Your task to perform on an android device: Go to privacy settings Image 0: 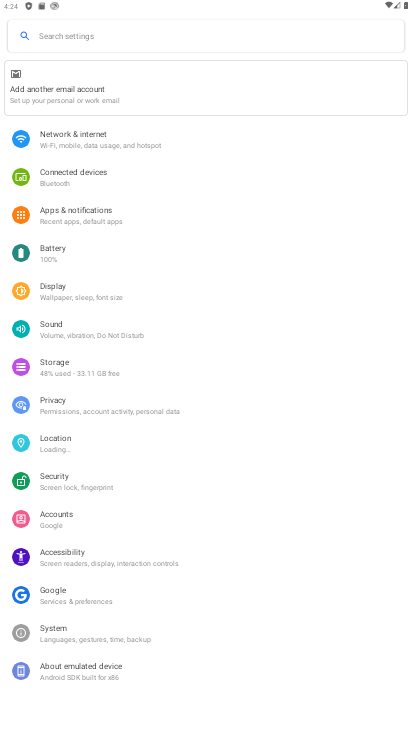
Step 0: press home button
Your task to perform on an android device: Go to privacy settings Image 1: 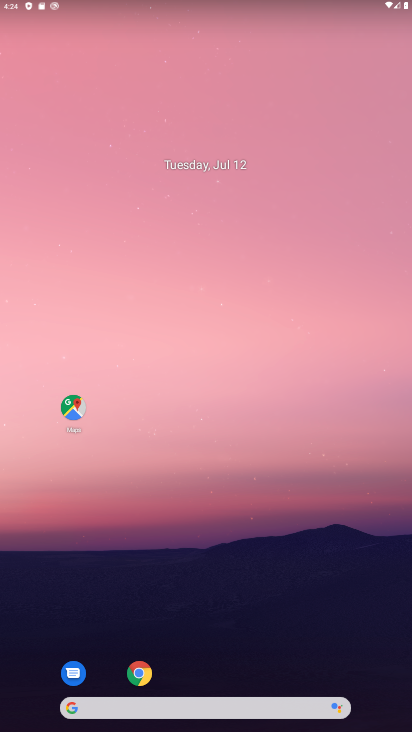
Step 1: drag from (204, 731) to (221, 198)
Your task to perform on an android device: Go to privacy settings Image 2: 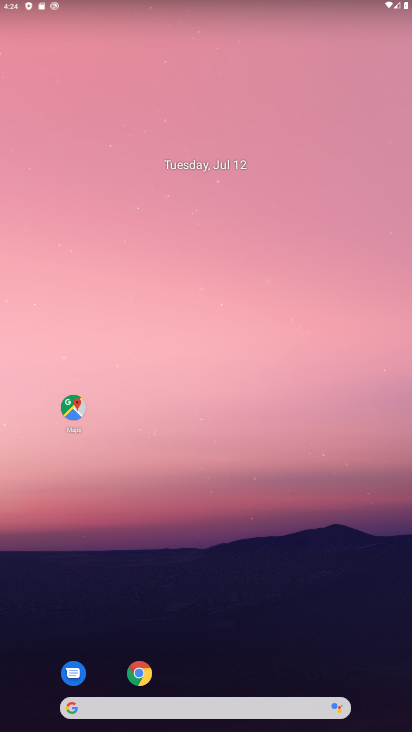
Step 2: drag from (292, 726) to (292, 595)
Your task to perform on an android device: Go to privacy settings Image 3: 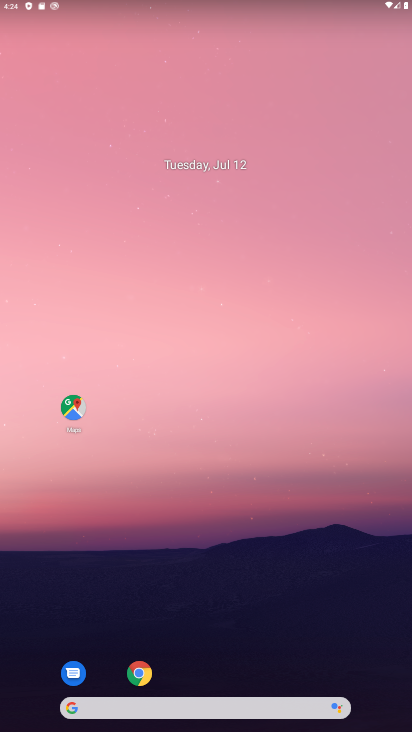
Step 3: drag from (291, 219) to (286, 108)
Your task to perform on an android device: Go to privacy settings Image 4: 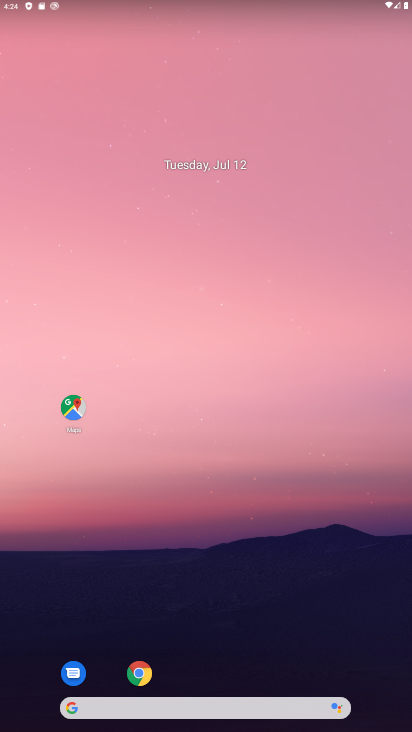
Step 4: drag from (285, 721) to (287, 64)
Your task to perform on an android device: Go to privacy settings Image 5: 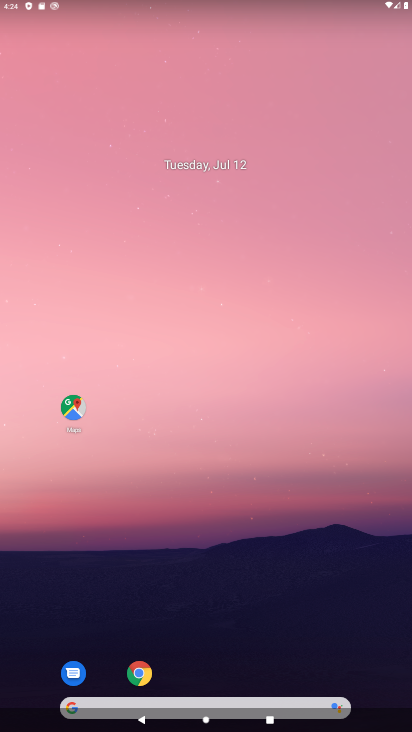
Step 5: click (303, 719)
Your task to perform on an android device: Go to privacy settings Image 6: 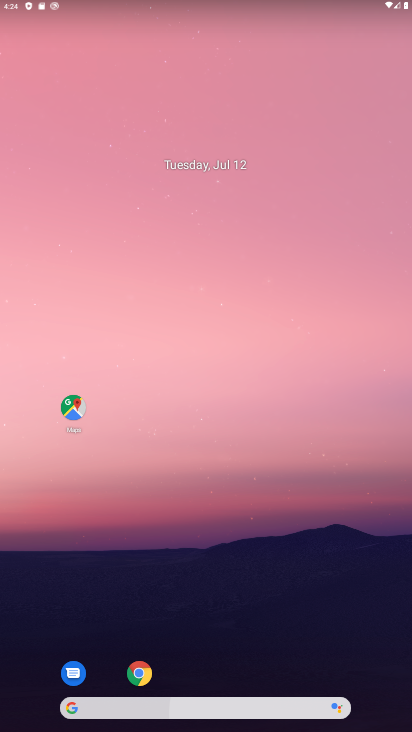
Step 6: drag from (311, 192) to (309, 122)
Your task to perform on an android device: Go to privacy settings Image 7: 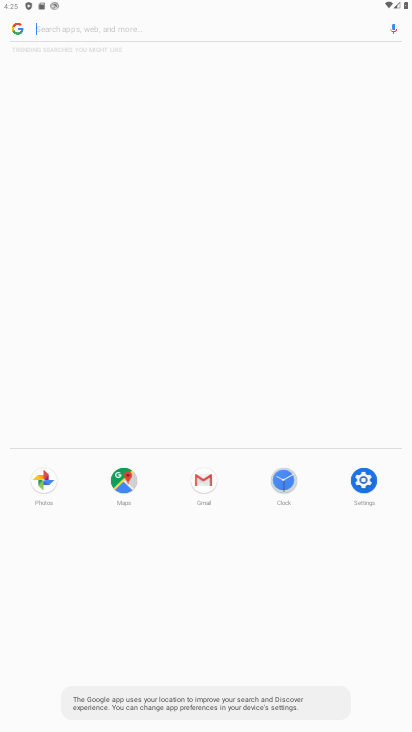
Step 7: press home button
Your task to perform on an android device: Go to privacy settings Image 8: 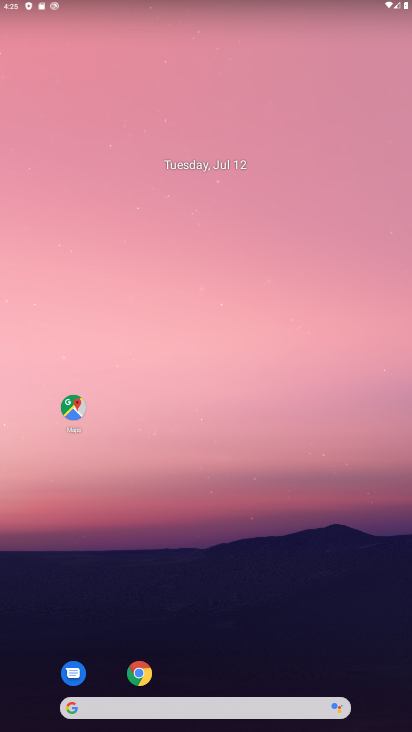
Step 8: drag from (260, 720) to (260, 124)
Your task to perform on an android device: Go to privacy settings Image 9: 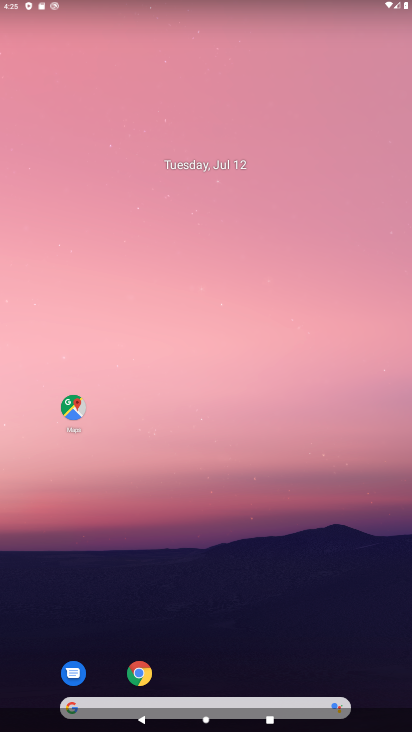
Step 9: click (176, 716)
Your task to perform on an android device: Go to privacy settings Image 10: 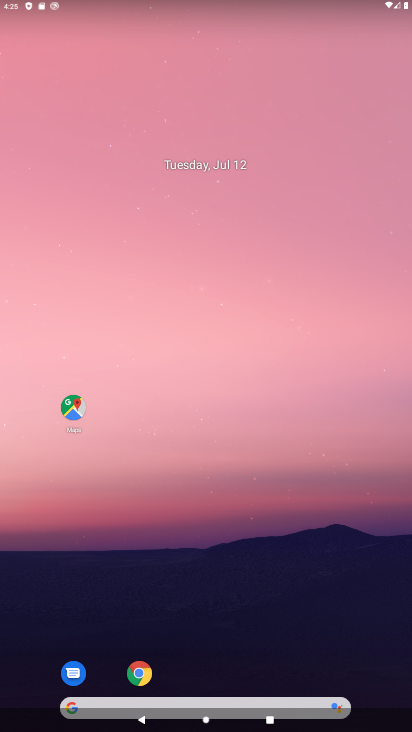
Step 10: drag from (184, 524) to (190, 321)
Your task to perform on an android device: Go to privacy settings Image 11: 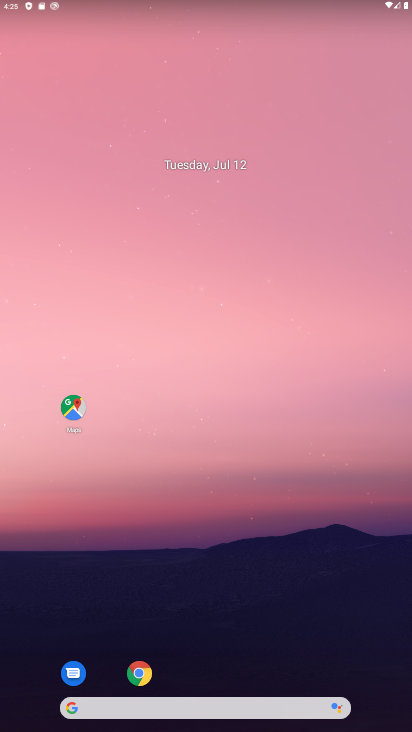
Step 11: drag from (151, 722) to (161, 131)
Your task to perform on an android device: Go to privacy settings Image 12: 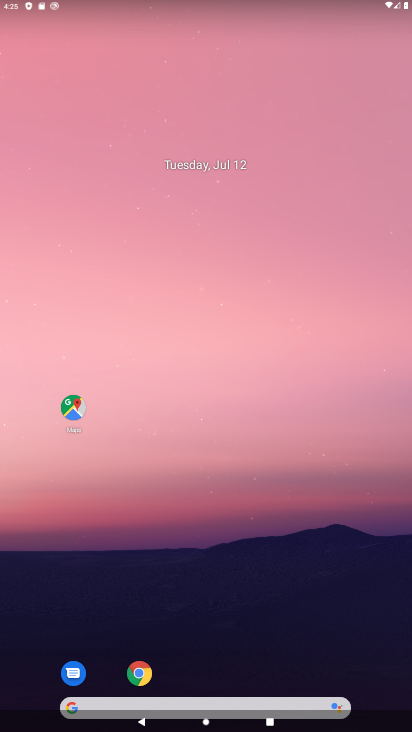
Step 12: drag from (243, 722) to (241, 136)
Your task to perform on an android device: Go to privacy settings Image 13: 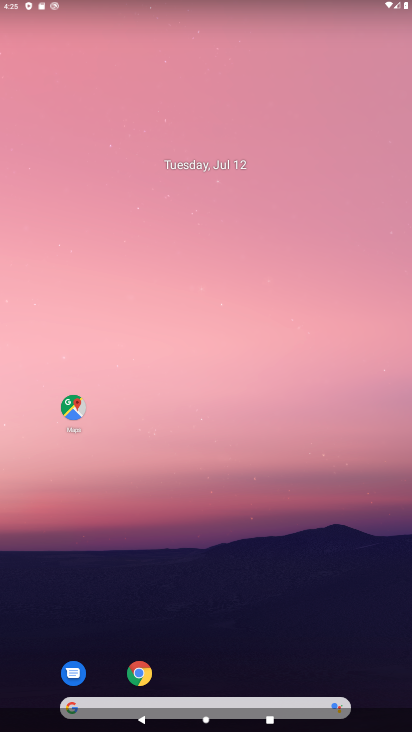
Step 13: drag from (360, 723) to (350, 57)
Your task to perform on an android device: Go to privacy settings Image 14: 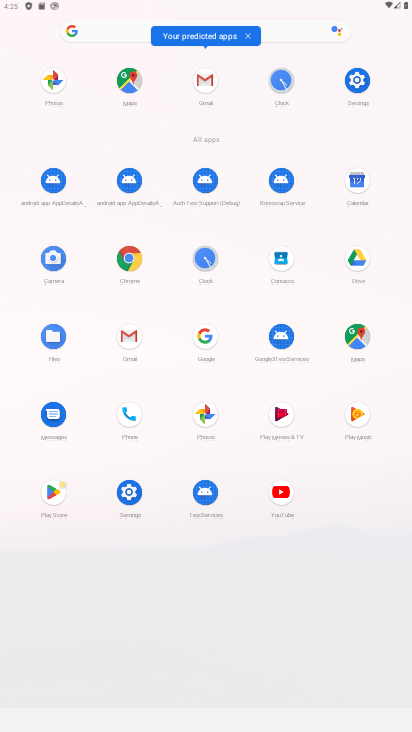
Step 14: click (358, 77)
Your task to perform on an android device: Go to privacy settings Image 15: 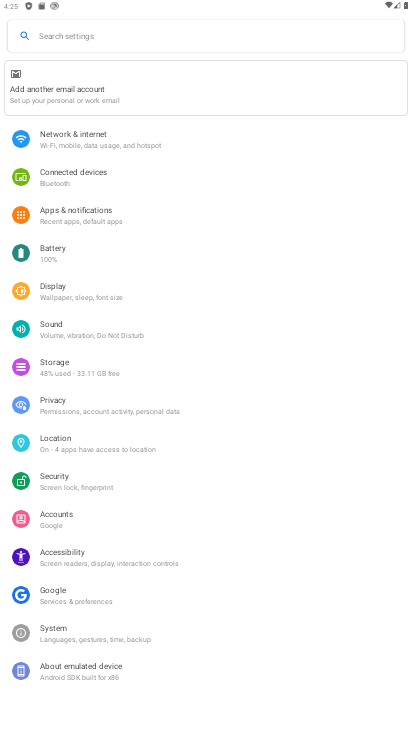
Step 15: click (51, 406)
Your task to perform on an android device: Go to privacy settings Image 16: 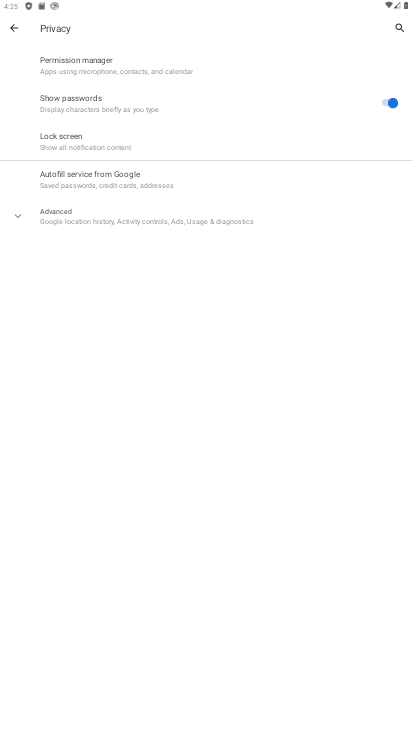
Step 16: task complete